Your task to perform on an android device: uninstall "Duolingo: language lessons" Image 0: 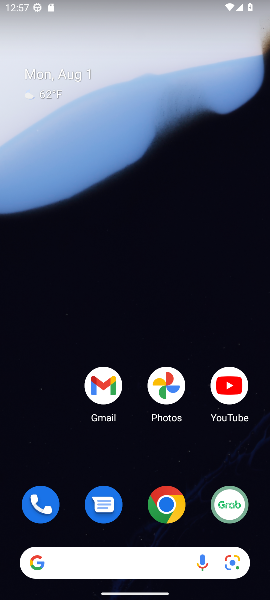
Step 0: drag from (191, 545) to (162, 87)
Your task to perform on an android device: uninstall "Duolingo: language lessons" Image 1: 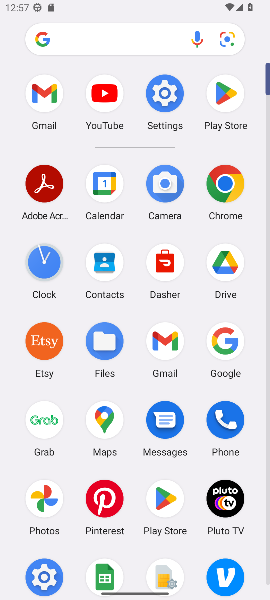
Step 1: click (232, 99)
Your task to perform on an android device: uninstall "Duolingo: language lessons" Image 2: 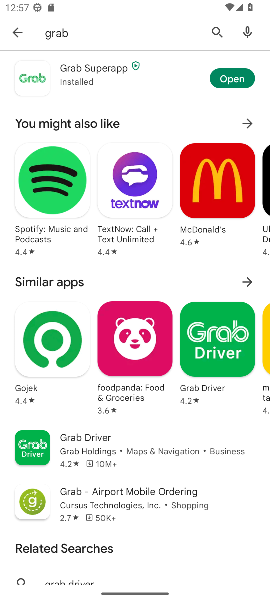
Step 2: click (218, 27)
Your task to perform on an android device: uninstall "Duolingo: language lessons" Image 3: 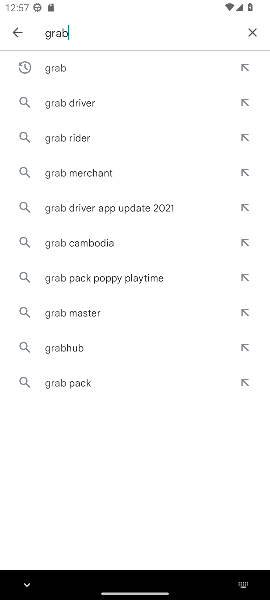
Step 3: click (242, 30)
Your task to perform on an android device: uninstall "Duolingo: language lessons" Image 4: 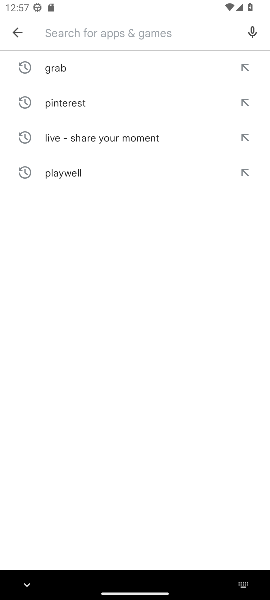
Step 4: type "duolinga: language lessons"
Your task to perform on an android device: uninstall "Duolingo: language lessons" Image 5: 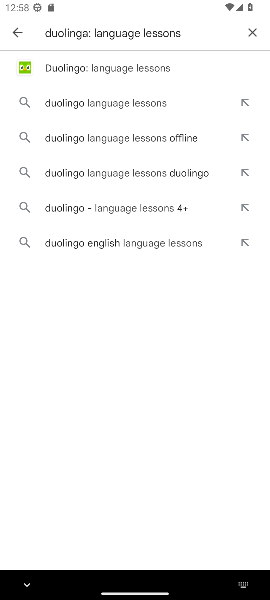
Step 5: click (138, 63)
Your task to perform on an android device: uninstall "Duolingo: language lessons" Image 6: 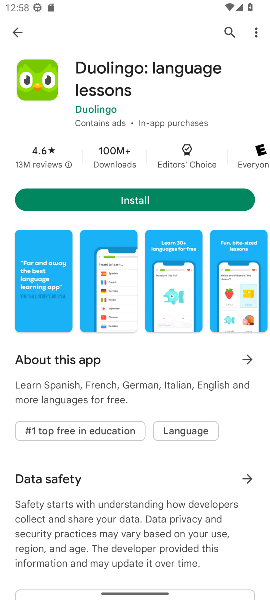
Step 6: task complete